Your task to perform on an android device: Show me the alarms in the clock app Image 0: 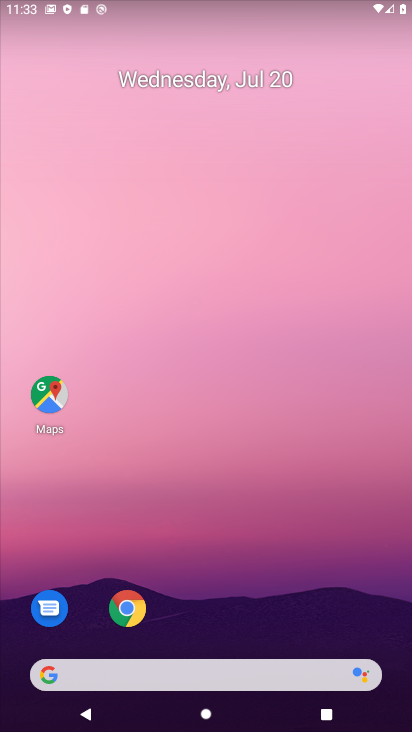
Step 0: press home button
Your task to perform on an android device: Show me the alarms in the clock app Image 1: 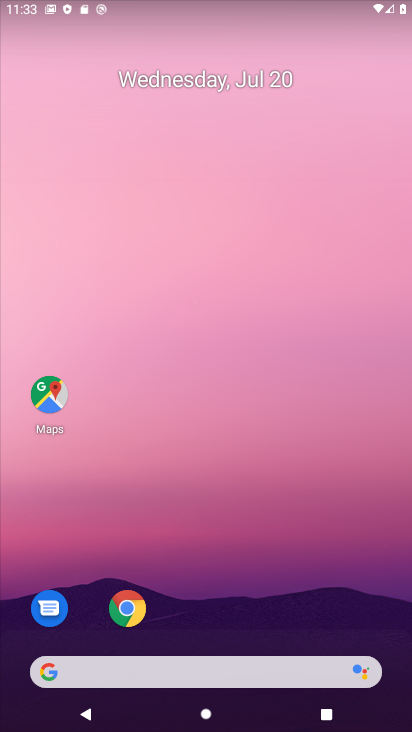
Step 1: drag from (325, 552) to (334, 108)
Your task to perform on an android device: Show me the alarms in the clock app Image 2: 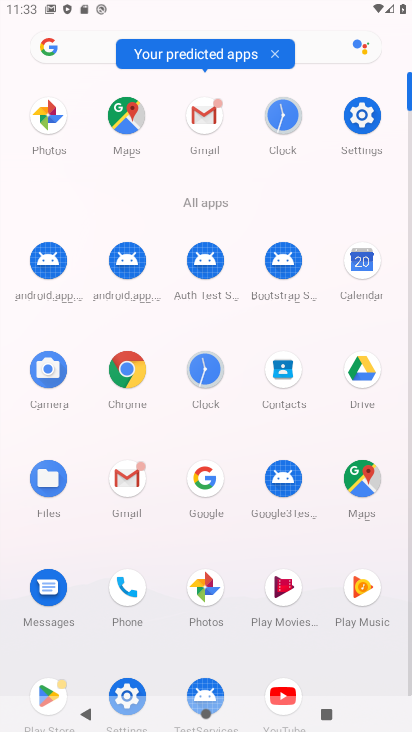
Step 2: click (213, 368)
Your task to perform on an android device: Show me the alarms in the clock app Image 3: 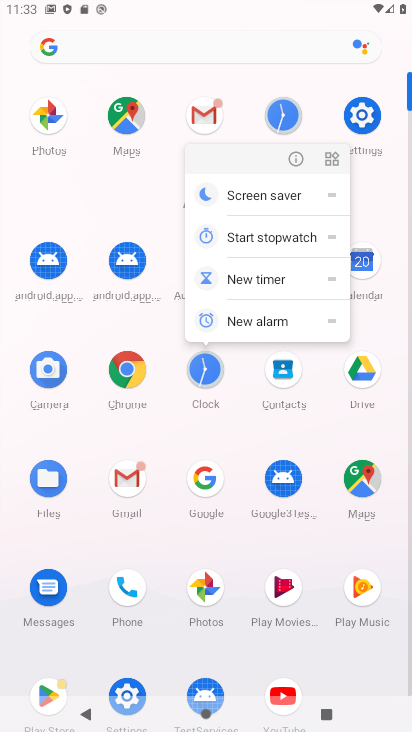
Step 3: click (199, 368)
Your task to perform on an android device: Show me the alarms in the clock app Image 4: 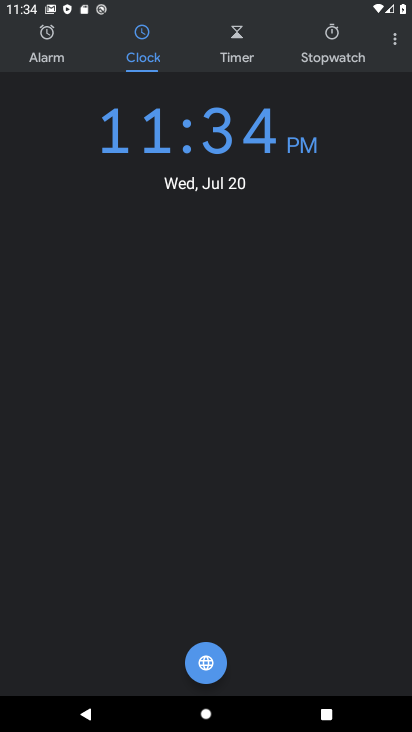
Step 4: click (54, 57)
Your task to perform on an android device: Show me the alarms in the clock app Image 5: 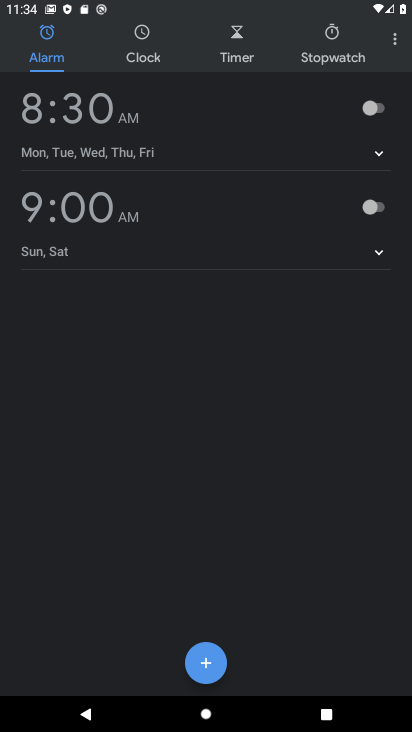
Step 5: task complete